Your task to perform on an android device: What's the weather today? Image 0: 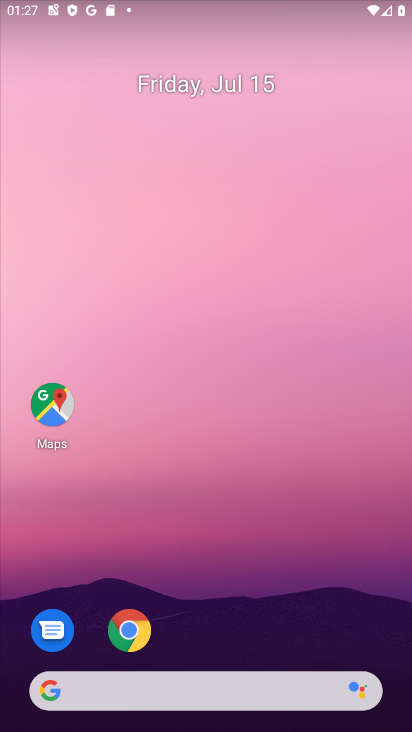
Step 0: click (238, 705)
Your task to perform on an android device: What's the weather today? Image 1: 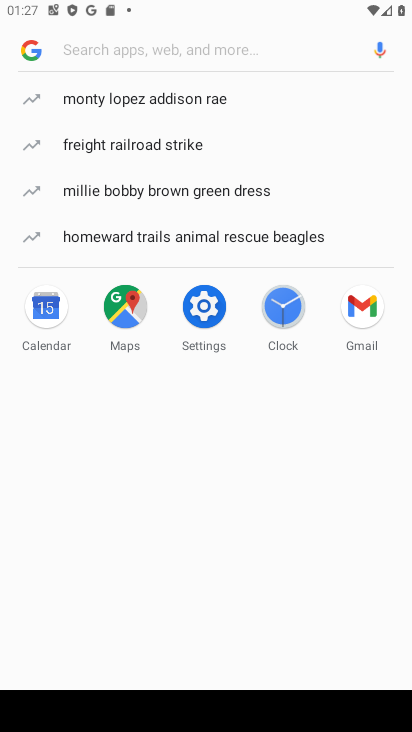
Step 1: type "weather"
Your task to perform on an android device: What's the weather today? Image 2: 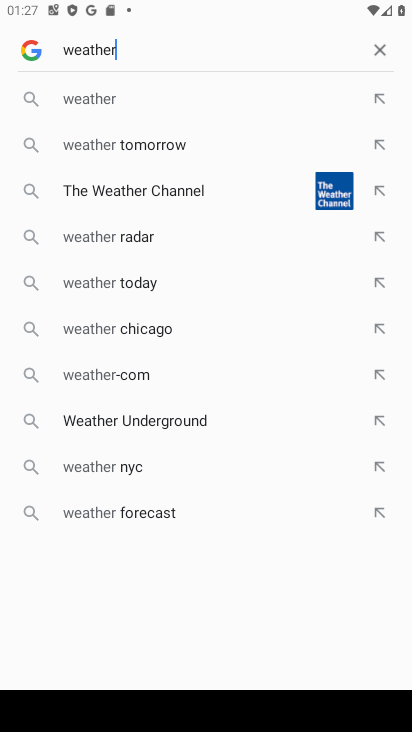
Step 2: click (119, 97)
Your task to perform on an android device: What's the weather today? Image 3: 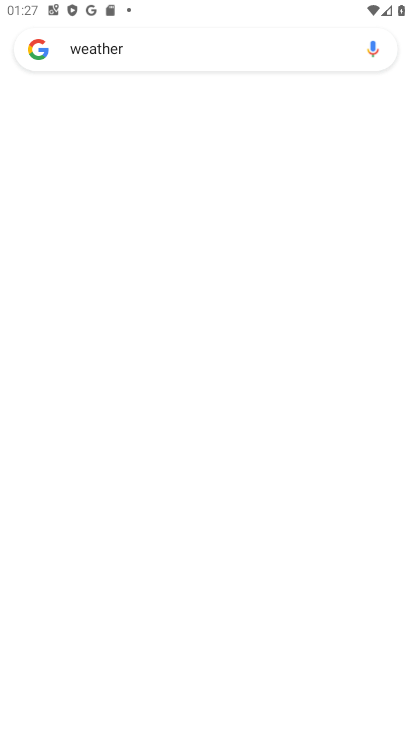
Step 3: task complete